Your task to perform on an android device: make emails show in primary in the gmail app Image 0: 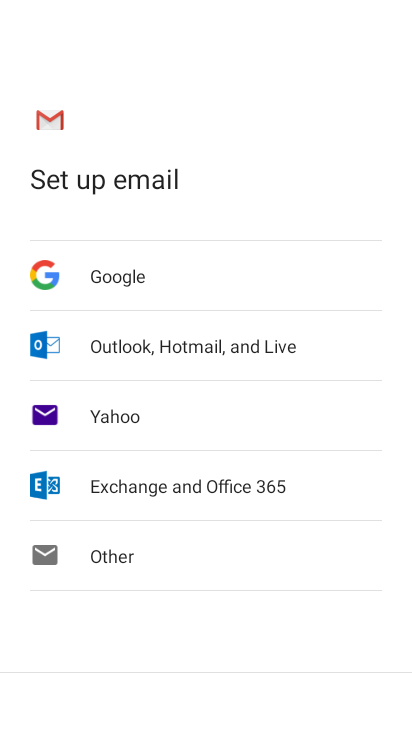
Step 0: press home button
Your task to perform on an android device: make emails show in primary in the gmail app Image 1: 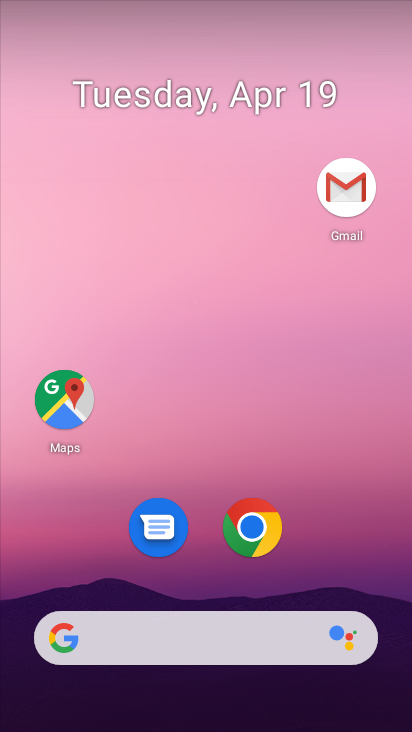
Step 1: click (345, 195)
Your task to perform on an android device: make emails show in primary in the gmail app Image 2: 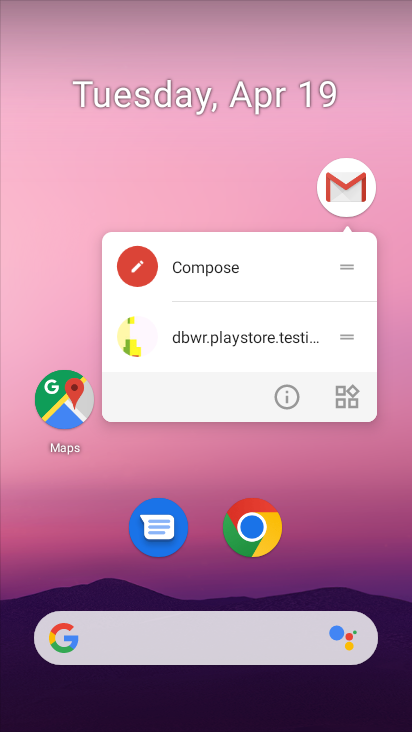
Step 2: click (343, 199)
Your task to perform on an android device: make emails show in primary in the gmail app Image 3: 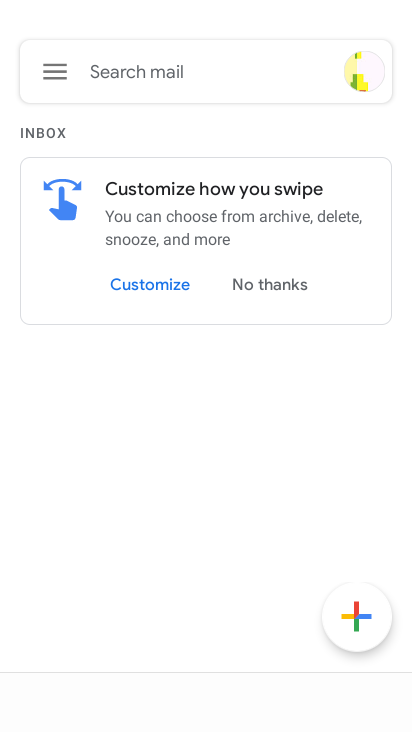
Step 3: click (40, 65)
Your task to perform on an android device: make emails show in primary in the gmail app Image 4: 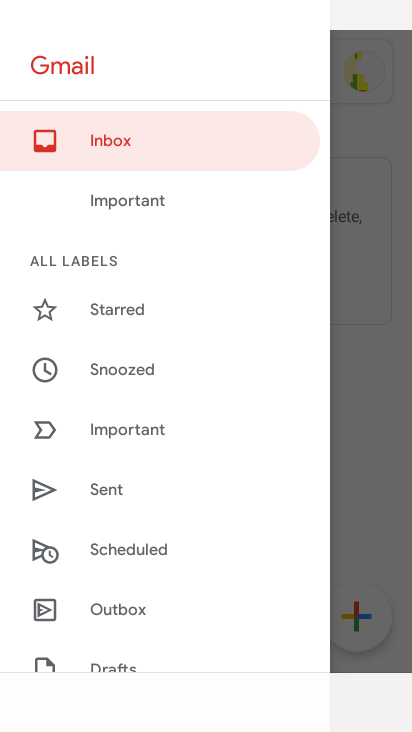
Step 4: drag from (200, 652) to (208, 177)
Your task to perform on an android device: make emails show in primary in the gmail app Image 5: 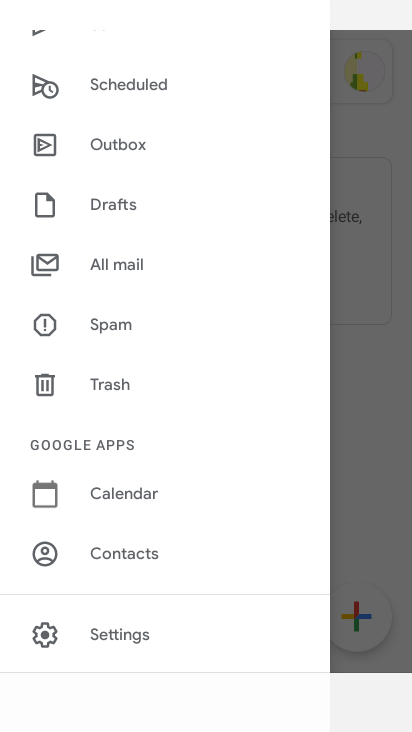
Step 5: click (148, 634)
Your task to perform on an android device: make emails show in primary in the gmail app Image 6: 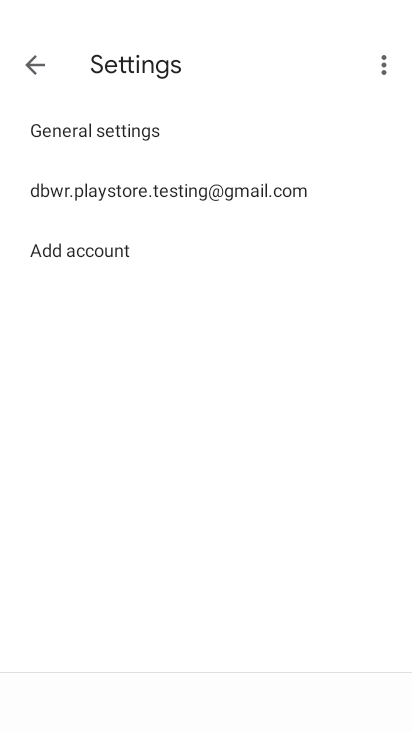
Step 6: click (303, 182)
Your task to perform on an android device: make emails show in primary in the gmail app Image 7: 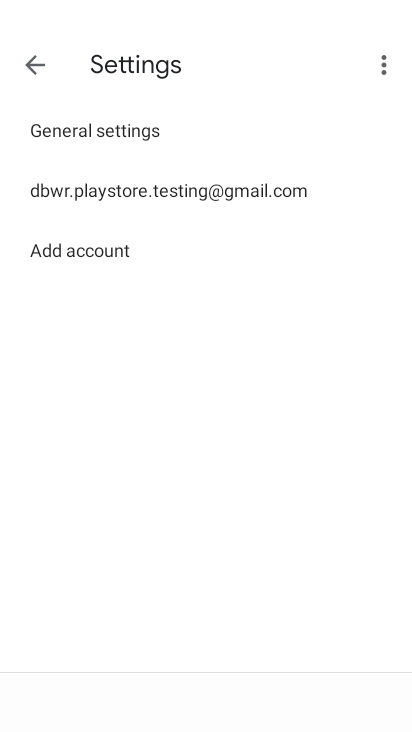
Step 7: click (283, 200)
Your task to perform on an android device: make emails show in primary in the gmail app Image 8: 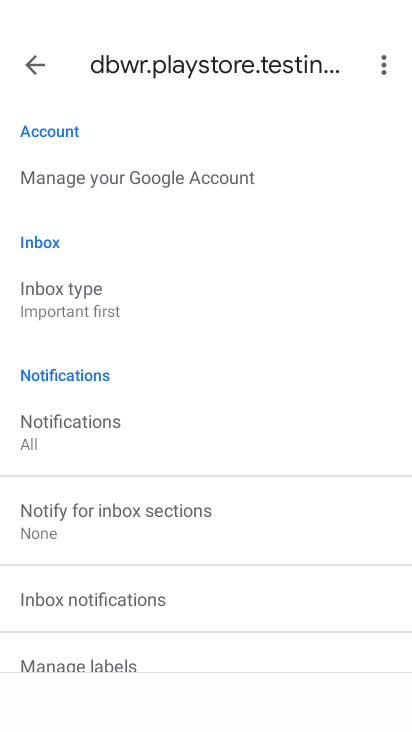
Step 8: click (92, 308)
Your task to perform on an android device: make emails show in primary in the gmail app Image 9: 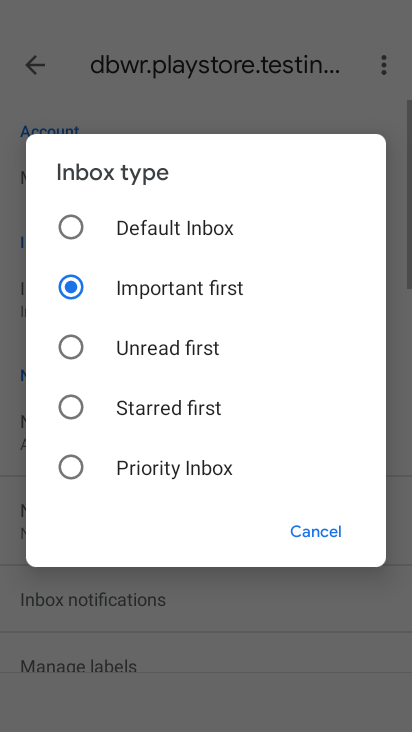
Step 9: click (166, 225)
Your task to perform on an android device: make emails show in primary in the gmail app Image 10: 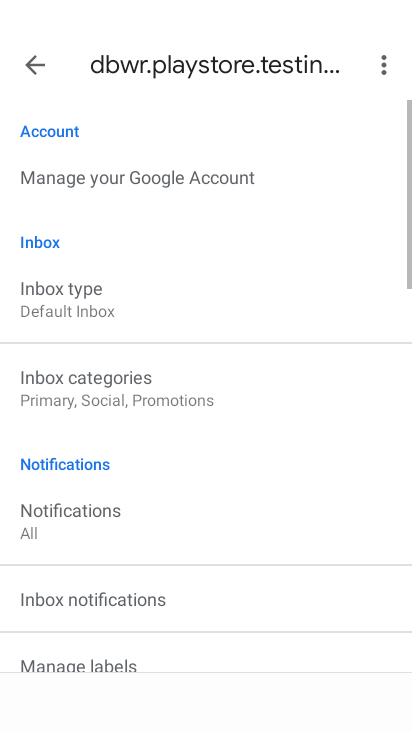
Step 10: click (21, 67)
Your task to perform on an android device: make emails show in primary in the gmail app Image 11: 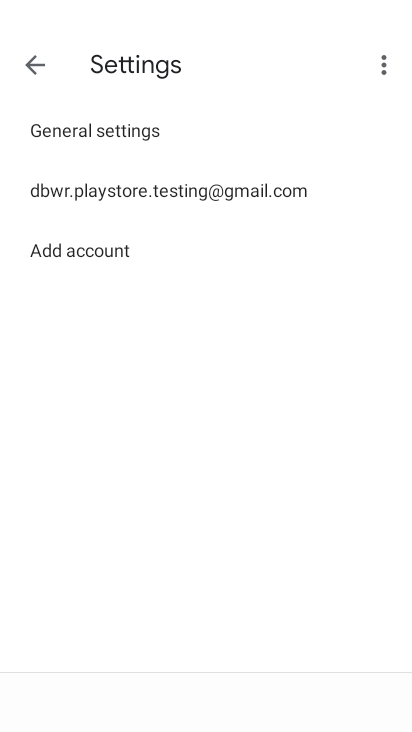
Step 11: click (22, 65)
Your task to perform on an android device: make emails show in primary in the gmail app Image 12: 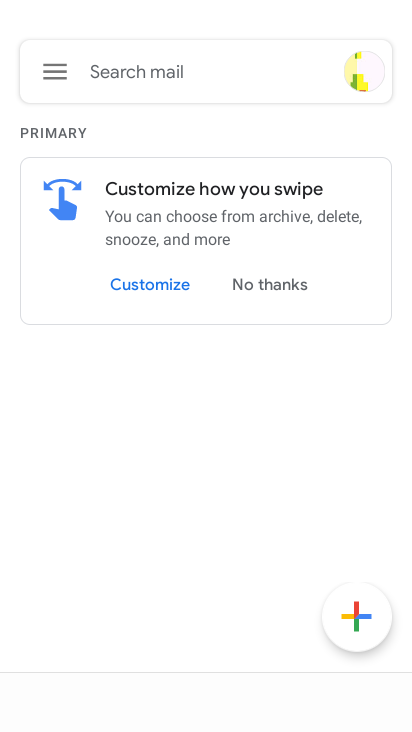
Step 12: click (55, 53)
Your task to perform on an android device: make emails show in primary in the gmail app Image 13: 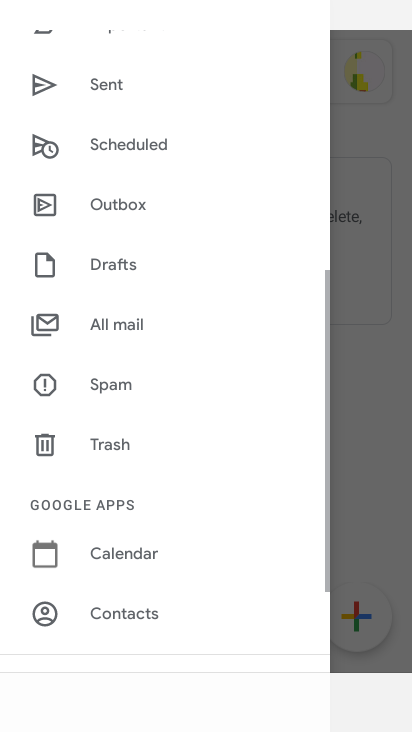
Step 13: drag from (208, 168) to (195, 654)
Your task to perform on an android device: make emails show in primary in the gmail app Image 14: 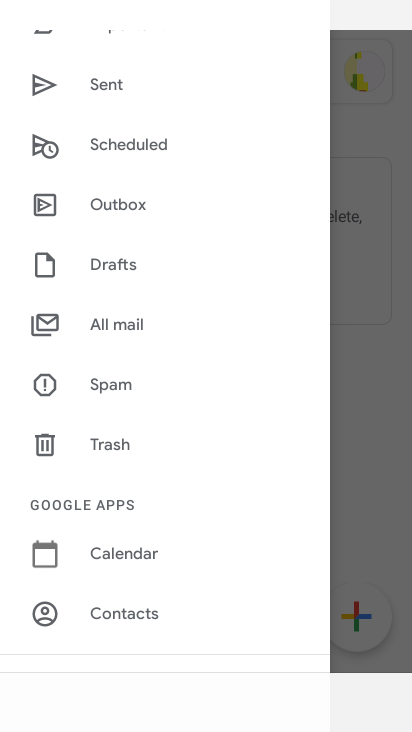
Step 14: drag from (245, 113) to (199, 637)
Your task to perform on an android device: make emails show in primary in the gmail app Image 15: 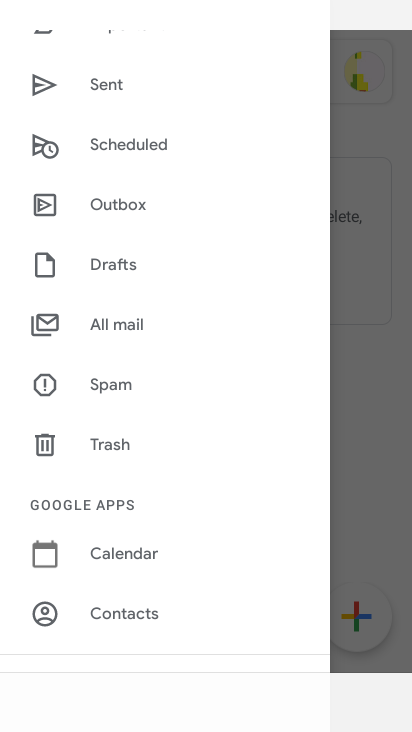
Step 15: drag from (199, 137) to (203, 606)
Your task to perform on an android device: make emails show in primary in the gmail app Image 16: 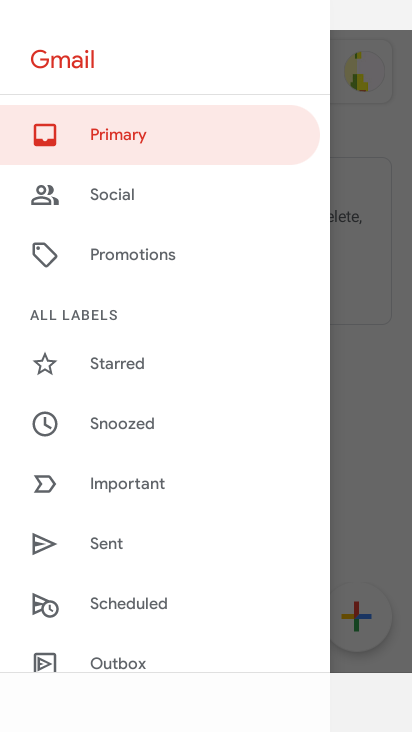
Step 16: click (205, 146)
Your task to perform on an android device: make emails show in primary in the gmail app Image 17: 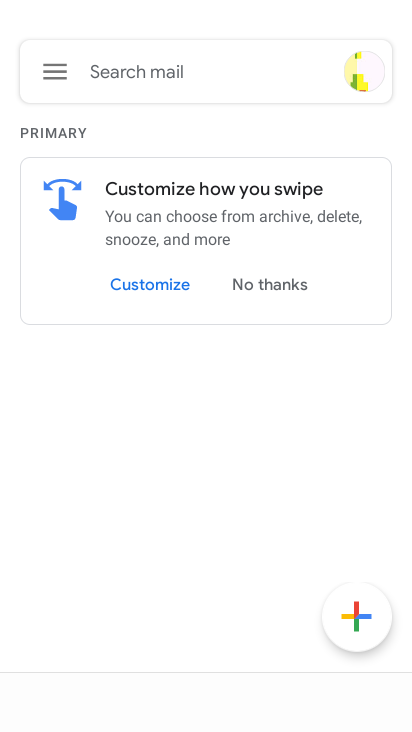
Step 17: task complete